Your task to perform on an android device: uninstall "Adobe Acrobat Reader" Image 0: 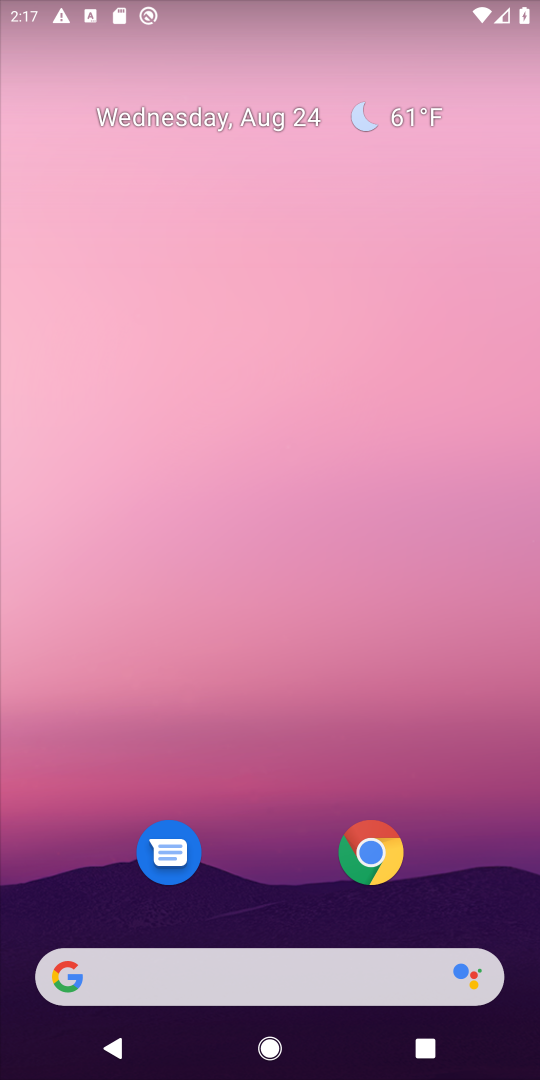
Step 0: press home button
Your task to perform on an android device: uninstall "Adobe Acrobat Reader" Image 1: 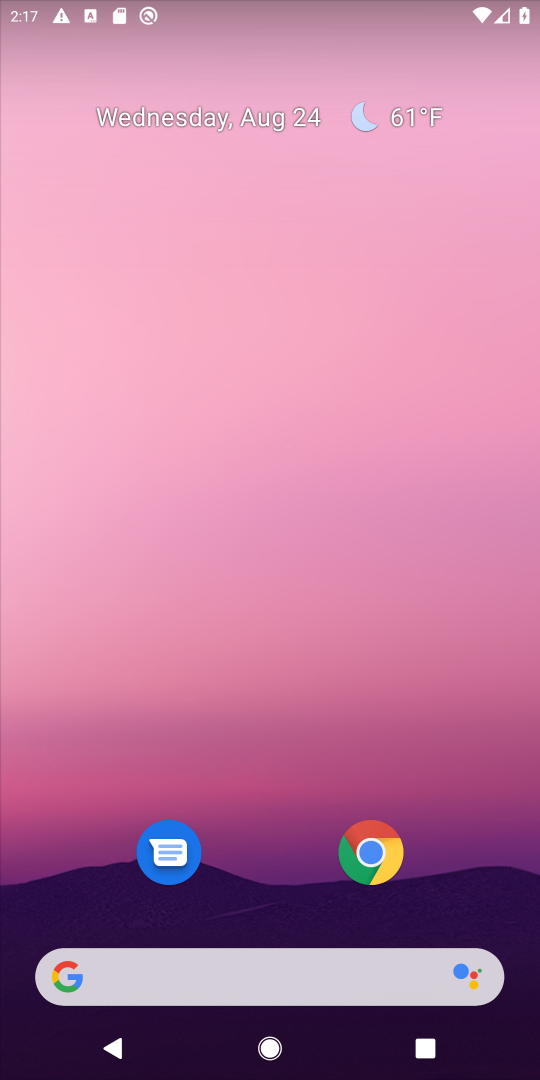
Step 1: drag from (261, 921) to (308, 10)
Your task to perform on an android device: uninstall "Adobe Acrobat Reader" Image 2: 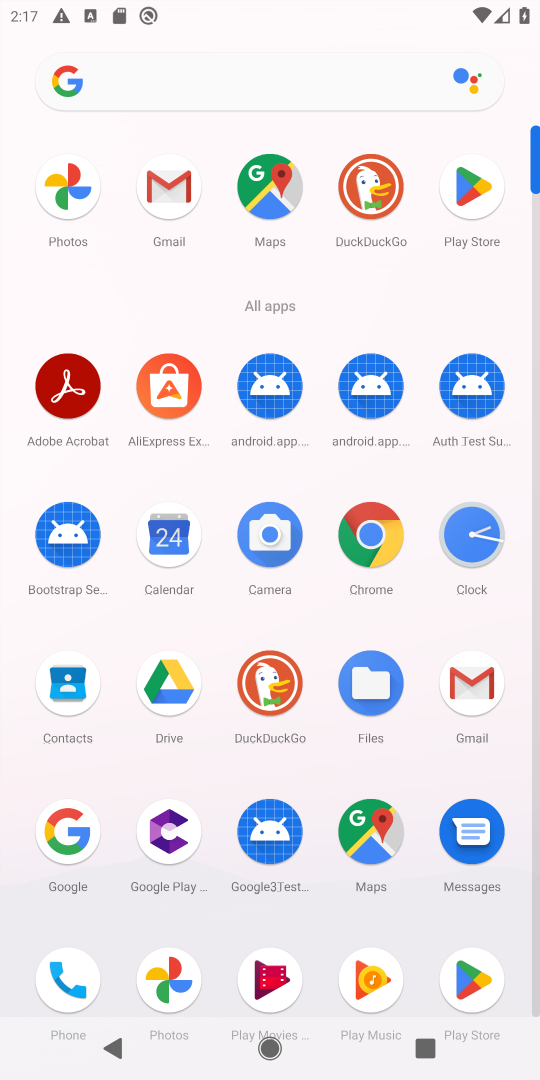
Step 2: click (470, 180)
Your task to perform on an android device: uninstall "Adobe Acrobat Reader" Image 3: 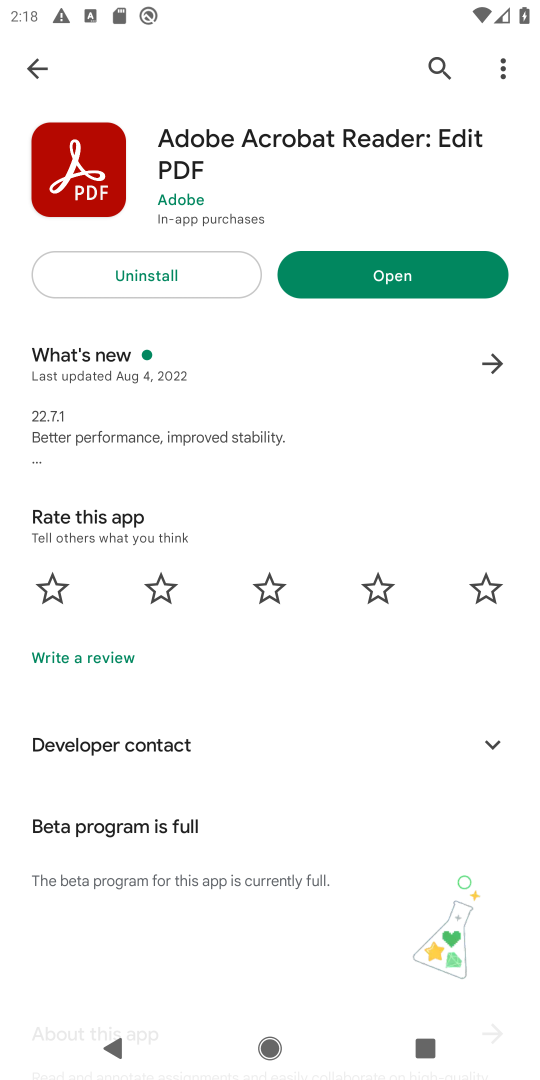
Step 3: click (158, 276)
Your task to perform on an android device: uninstall "Adobe Acrobat Reader" Image 4: 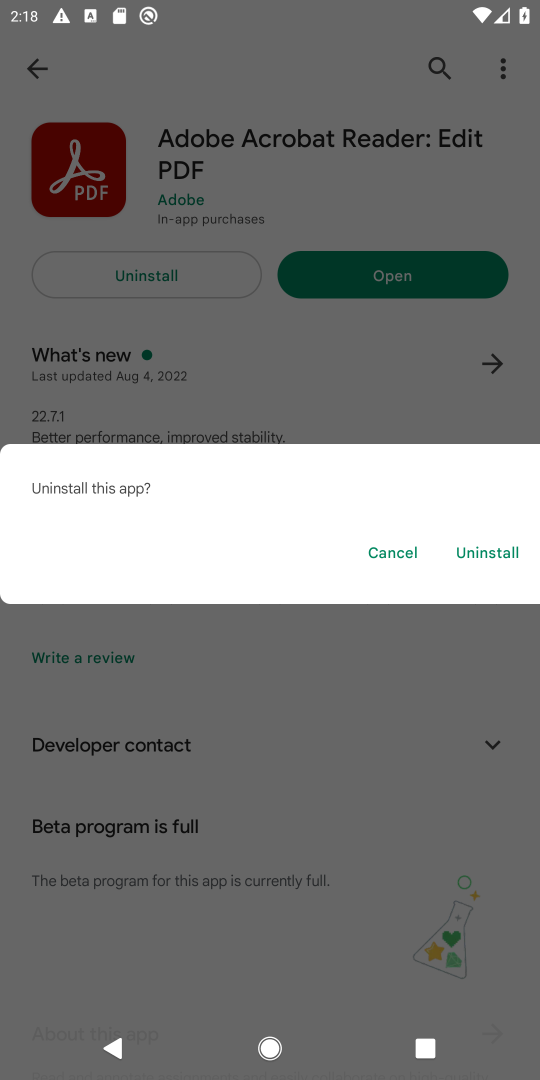
Step 4: click (490, 558)
Your task to perform on an android device: uninstall "Adobe Acrobat Reader" Image 5: 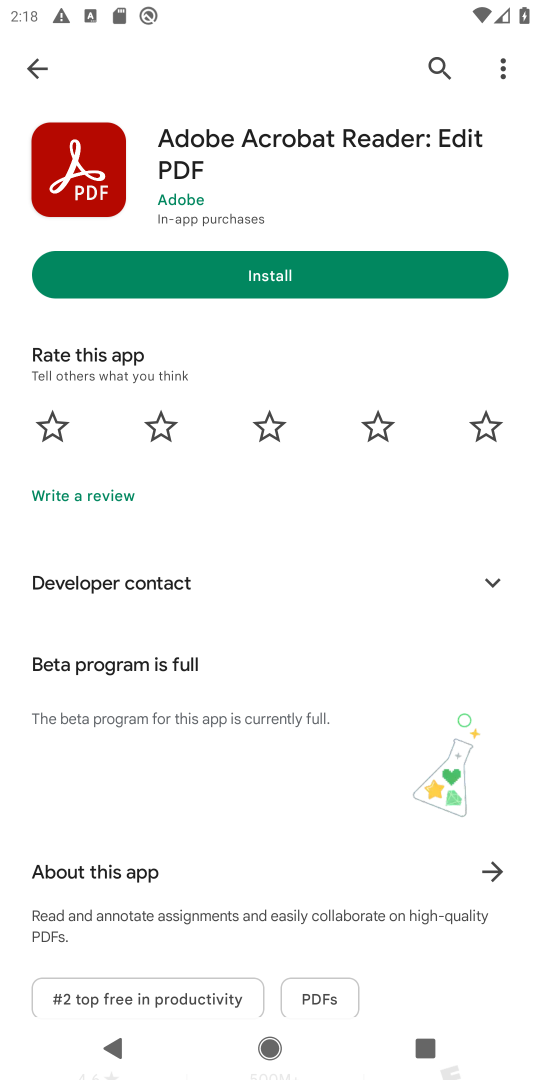
Step 5: task complete